Your task to perform on an android device: toggle improve location accuracy Image 0: 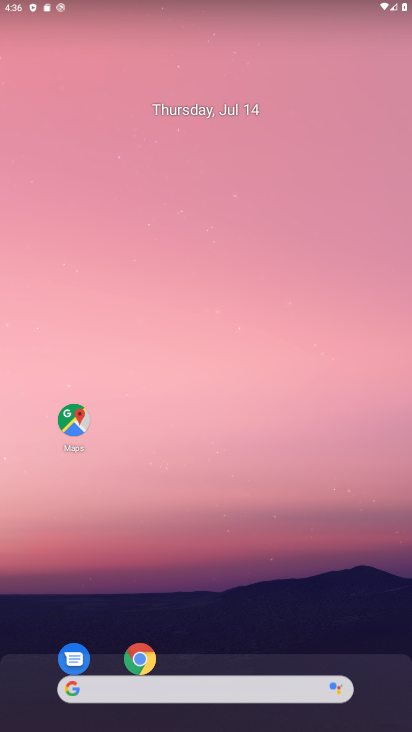
Step 0: drag from (199, 681) to (270, 160)
Your task to perform on an android device: toggle improve location accuracy Image 1: 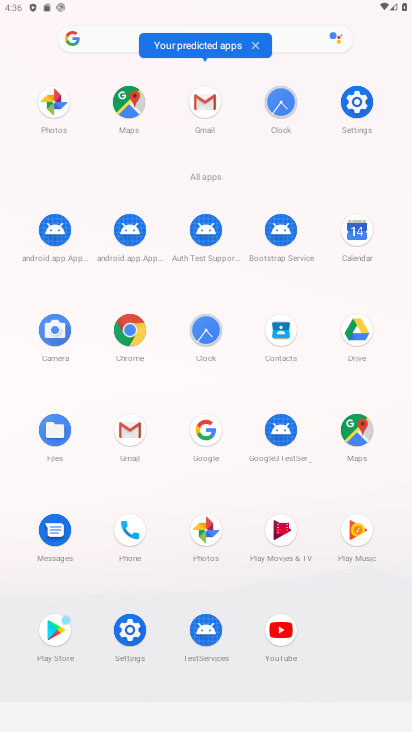
Step 1: click (137, 636)
Your task to perform on an android device: toggle improve location accuracy Image 2: 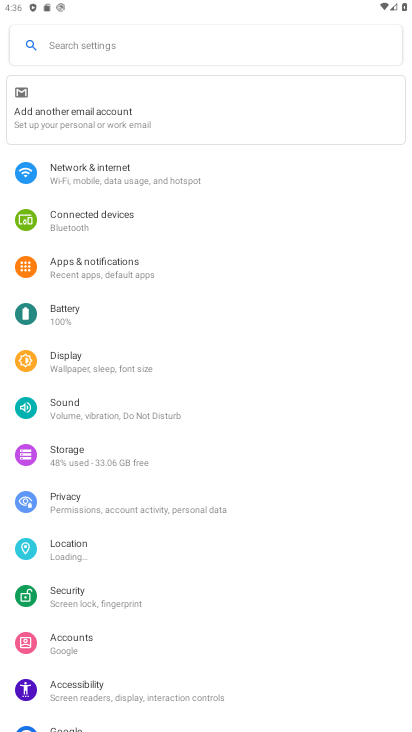
Step 2: click (88, 555)
Your task to perform on an android device: toggle improve location accuracy Image 3: 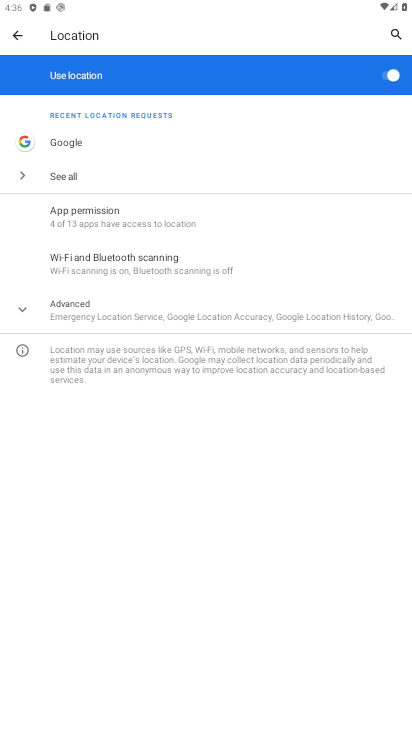
Step 3: click (130, 302)
Your task to perform on an android device: toggle improve location accuracy Image 4: 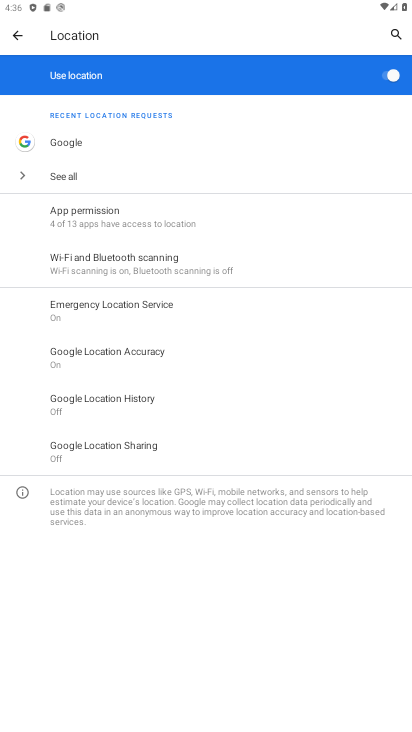
Step 4: click (155, 363)
Your task to perform on an android device: toggle improve location accuracy Image 5: 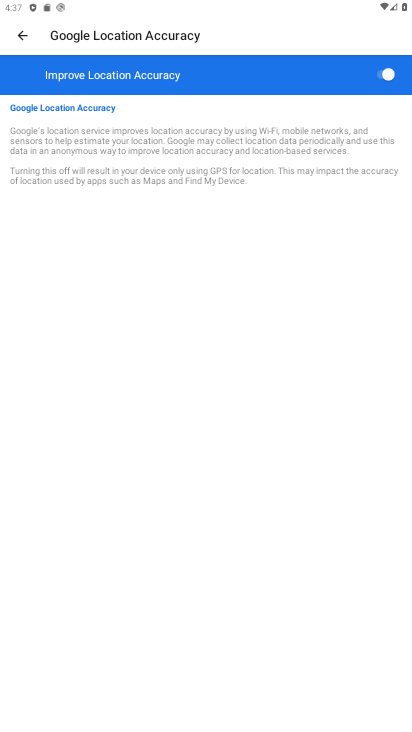
Step 5: click (381, 73)
Your task to perform on an android device: toggle improve location accuracy Image 6: 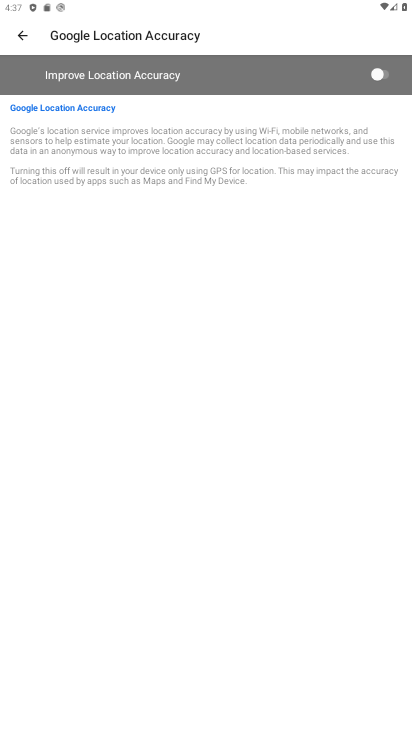
Step 6: task complete